Your task to perform on an android device: Go to accessibility settings Image 0: 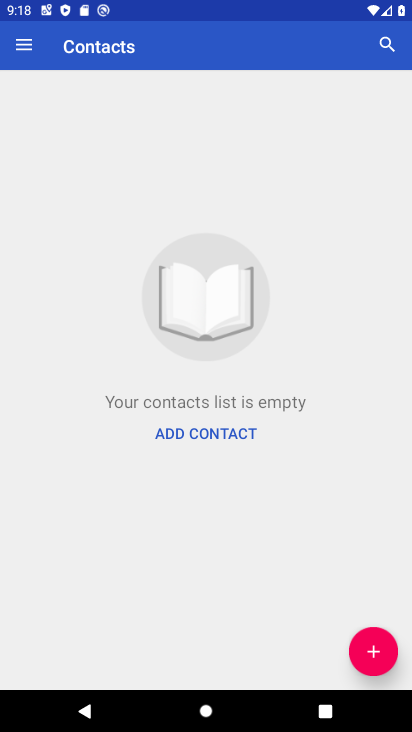
Step 0: press home button
Your task to perform on an android device: Go to accessibility settings Image 1: 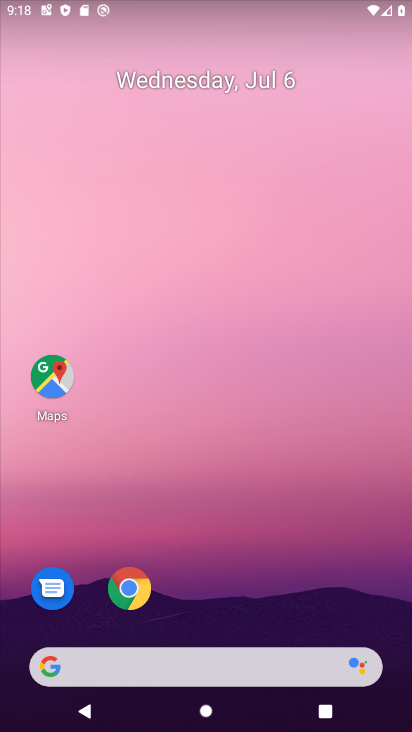
Step 1: click (191, 673)
Your task to perform on an android device: Go to accessibility settings Image 2: 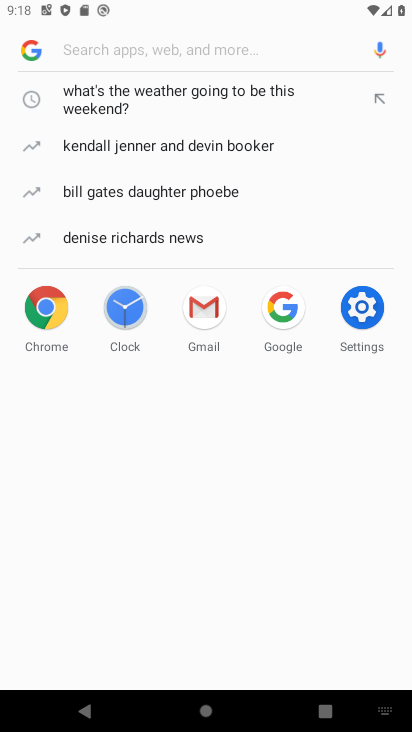
Step 2: press home button
Your task to perform on an android device: Go to accessibility settings Image 3: 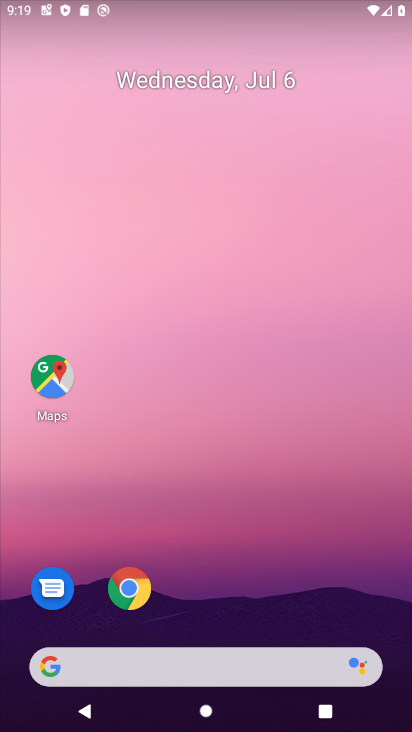
Step 3: drag from (245, 548) to (305, 28)
Your task to perform on an android device: Go to accessibility settings Image 4: 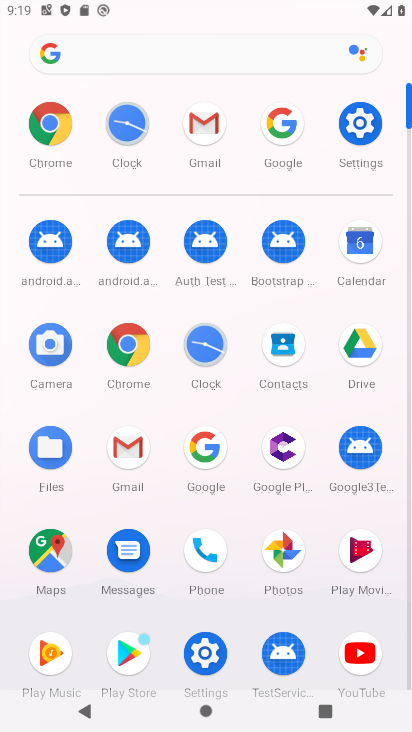
Step 4: click (353, 121)
Your task to perform on an android device: Go to accessibility settings Image 5: 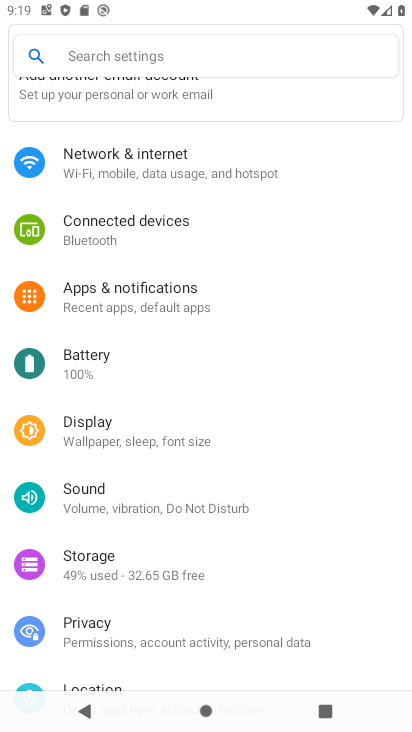
Step 5: drag from (191, 545) to (331, 92)
Your task to perform on an android device: Go to accessibility settings Image 6: 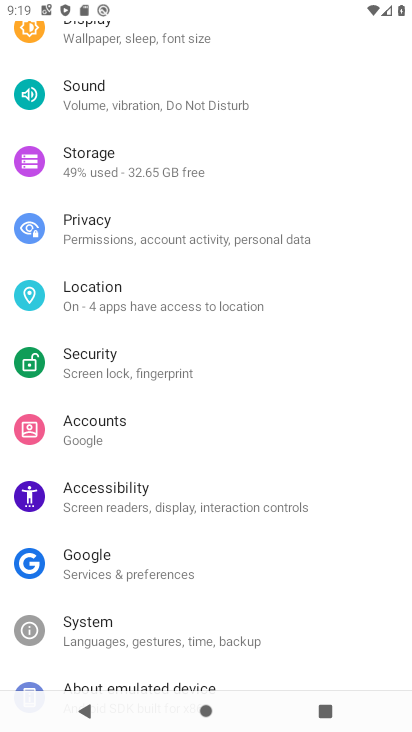
Step 6: click (147, 507)
Your task to perform on an android device: Go to accessibility settings Image 7: 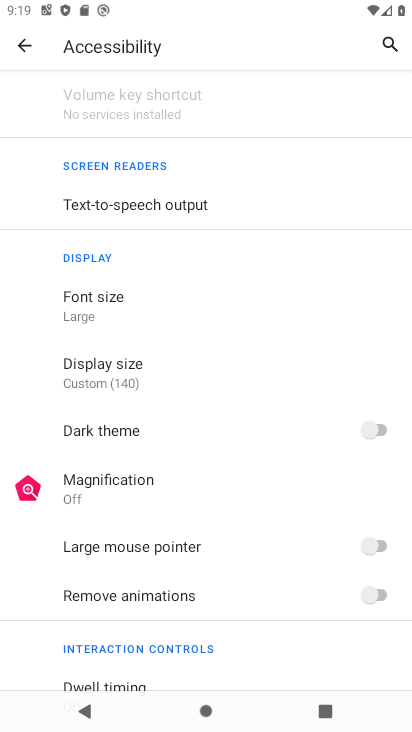
Step 7: task complete